Your task to perform on an android device: turn off notifications settings in the gmail app Image 0: 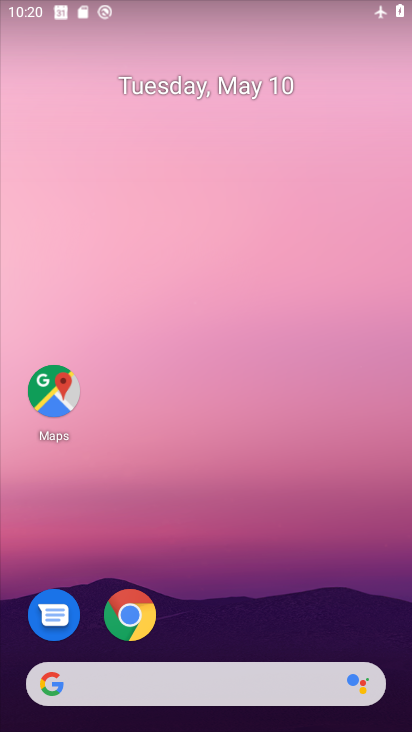
Step 0: drag from (194, 635) to (228, 167)
Your task to perform on an android device: turn off notifications settings in the gmail app Image 1: 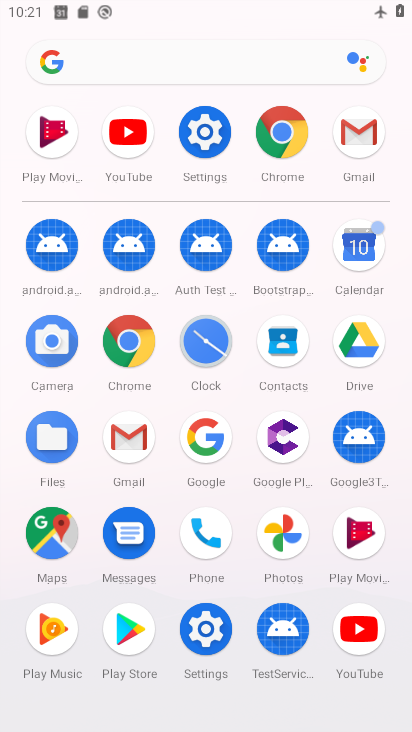
Step 1: click (126, 453)
Your task to perform on an android device: turn off notifications settings in the gmail app Image 2: 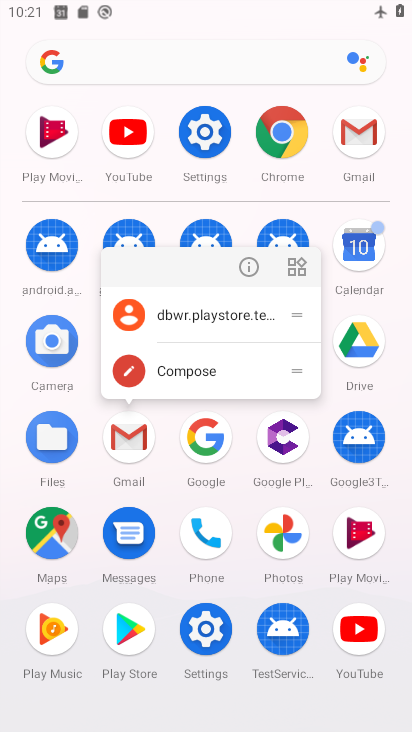
Step 2: click (247, 259)
Your task to perform on an android device: turn off notifications settings in the gmail app Image 3: 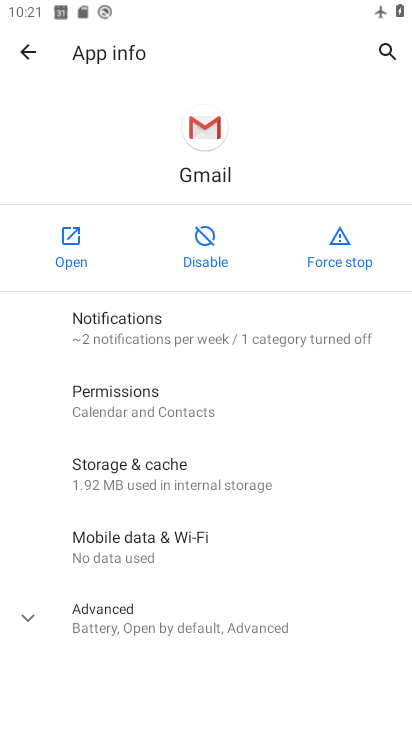
Step 3: click (73, 237)
Your task to perform on an android device: turn off notifications settings in the gmail app Image 4: 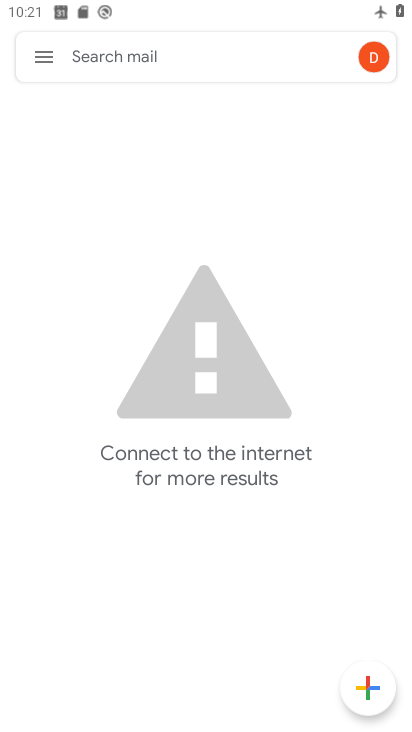
Step 4: click (34, 44)
Your task to perform on an android device: turn off notifications settings in the gmail app Image 5: 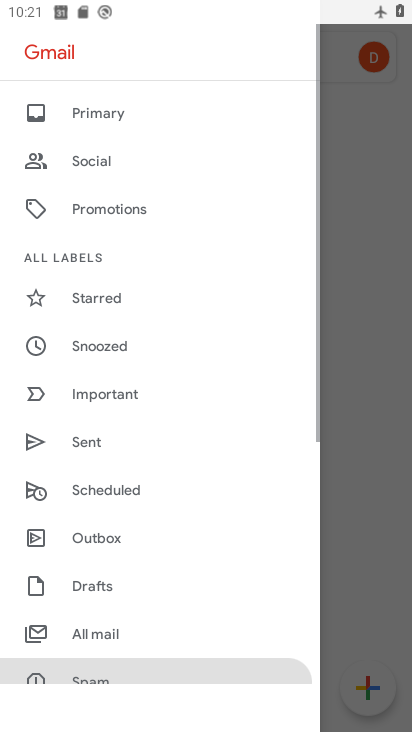
Step 5: drag from (130, 605) to (167, 160)
Your task to perform on an android device: turn off notifications settings in the gmail app Image 6: 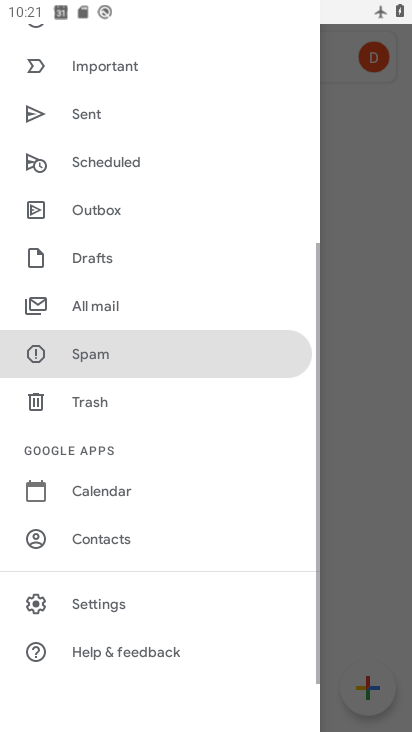
Step 6: click (104, 592)
Your task to perform on an android device: turn off notifications settings in the gmail app Image 7: 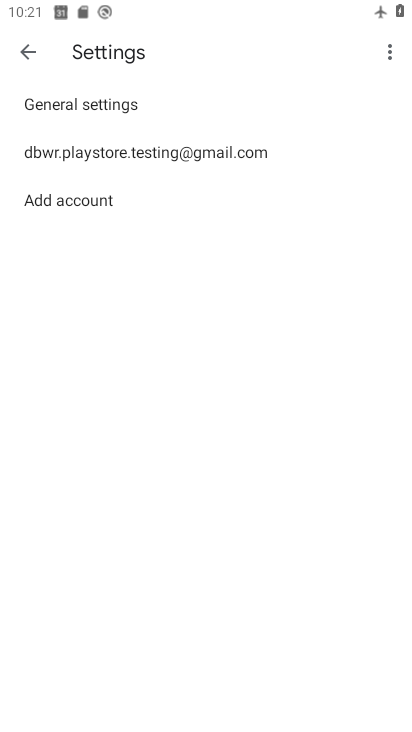
Step 7: drag from (114, 557) to (178, 89)
Your task to perform on an android device: turn off notifications settings in the gmail app Image 8: 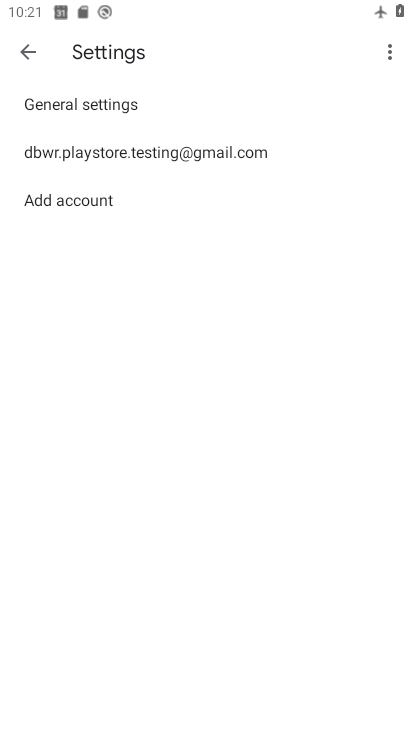
Step 8: click (110, 149)
Your task to perform on an android device: turn off notifications settings in the gmail app Image 9: 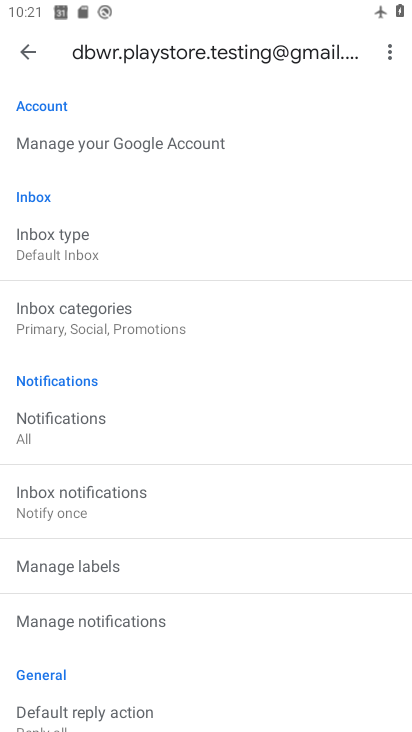
Step 9: drag from (97, 650) to (121, 525)
Your task to perform on an android device: turn off notifications settings in the gmail app Image 10: 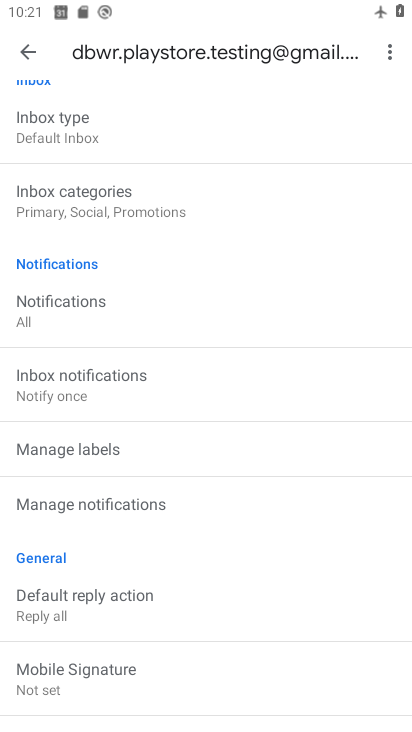
Step 10: click (120, 501)
Your task to perform on an android device: turn off notifications settings in the gmail app Image 11: 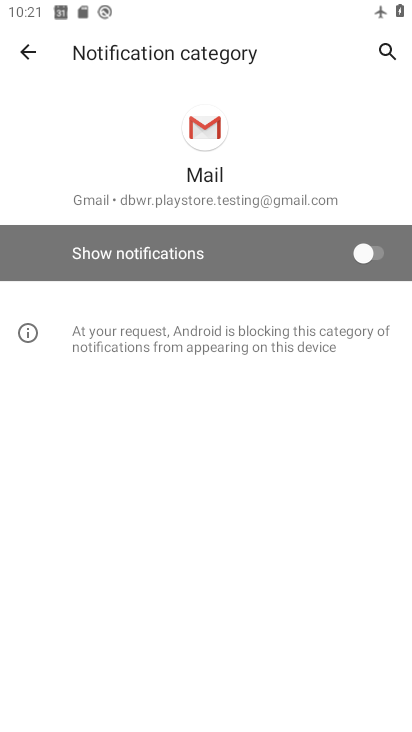
Step 11: click (334, 261)
Your task to perform on an android device: turn off notifications settings in the gmail app Image 12: 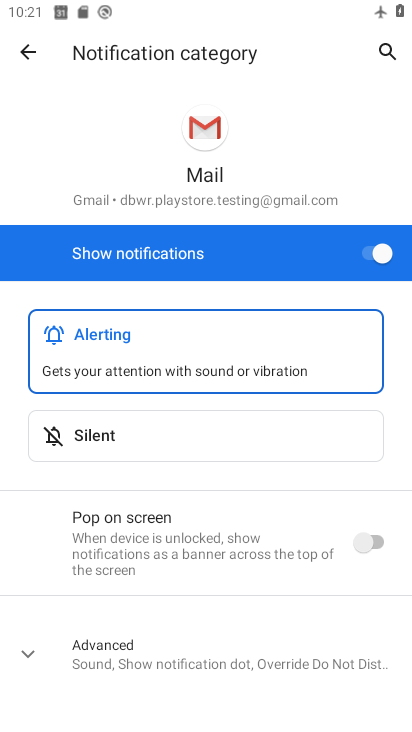
Step 12: click (334, 261)
Your task to perform on an android device: turn off notifications settings in the gmail app Image 13: 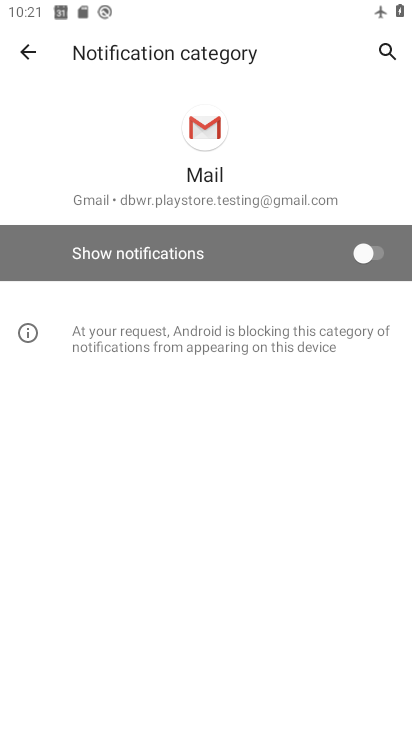
Step 13: task complete